Your task to perform on an android device: snooze an email in the gmail app Image 0: 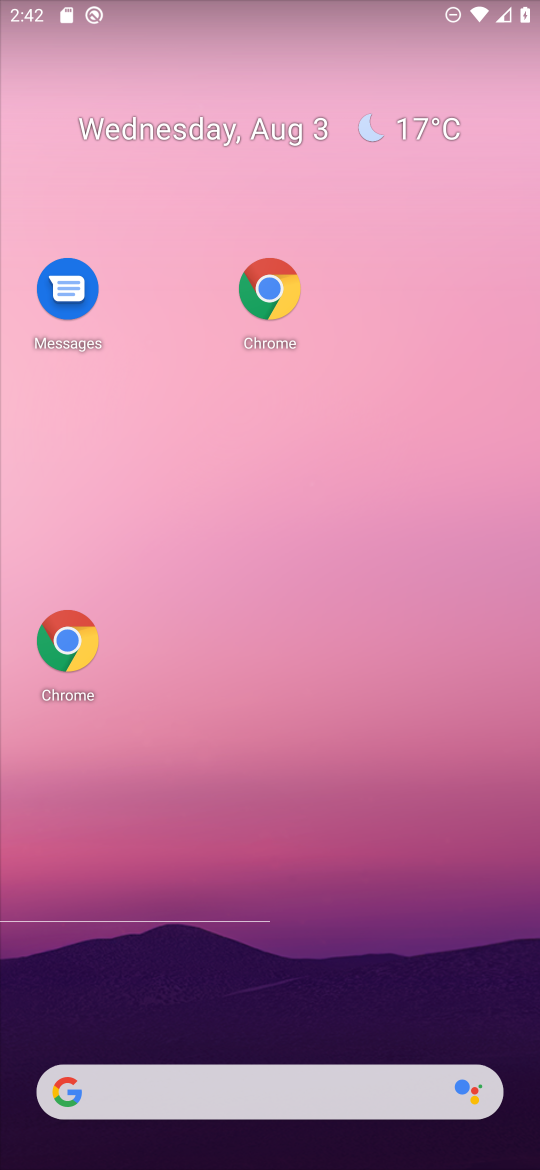
Step 0: drag from (381, 958) to (388, 301)
Your task to perform on an android device: snooze an email in the gmail app Image 1: 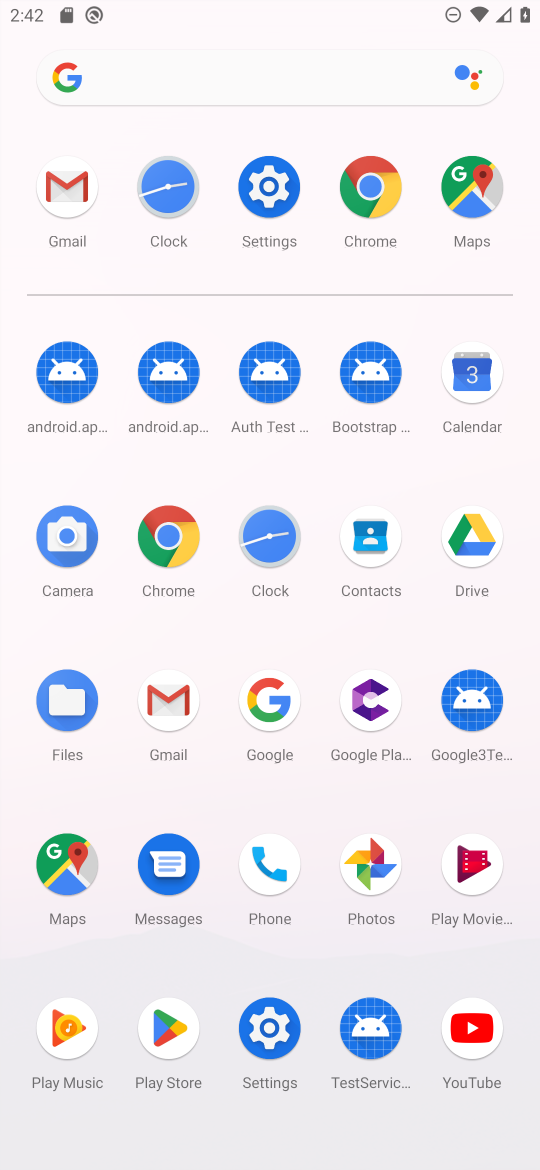
Step 1: click (70, 226)
Your task to perform on an android device: snooze an email in the gmail app Image 2: 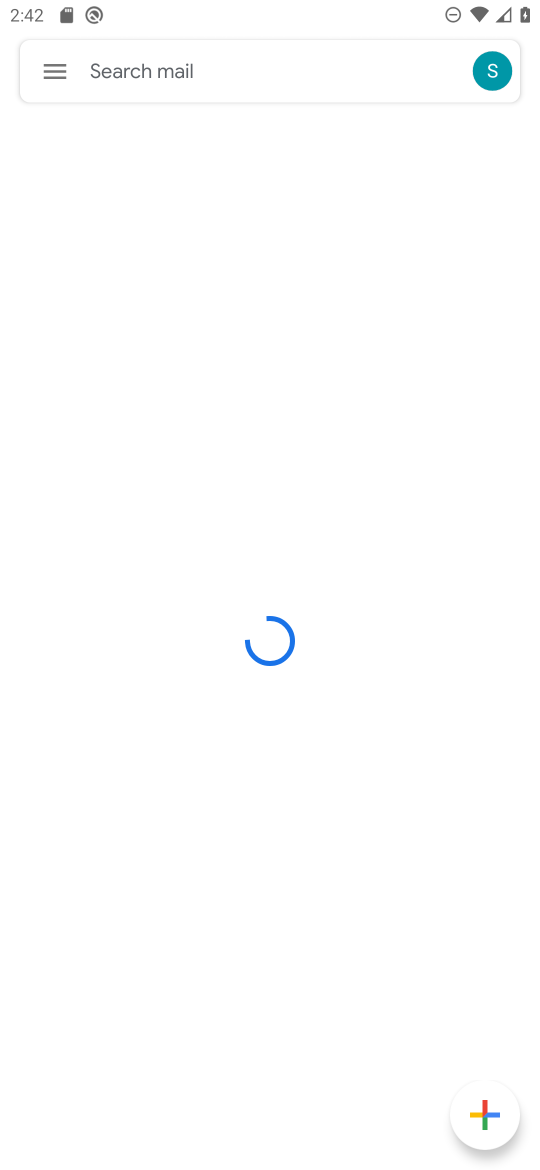
Step 2: click (47, 74)
Your task to perform on an android device: snooze an email in the gmail app Image 3: 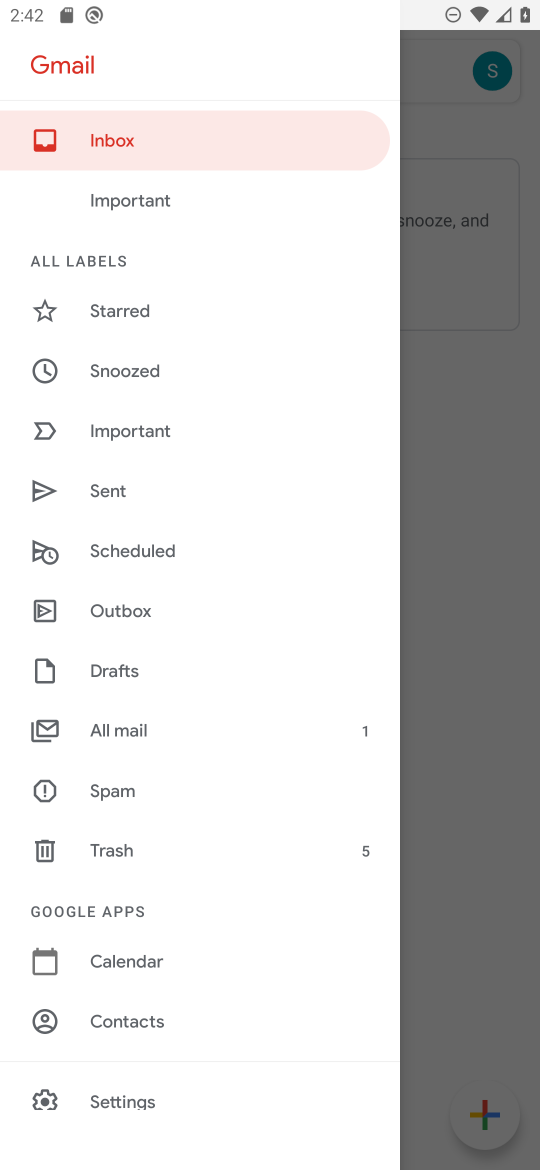
Step 3: click (425, 493)
Your task to perform on an android device: snooze an email in the gmail app Image 4: 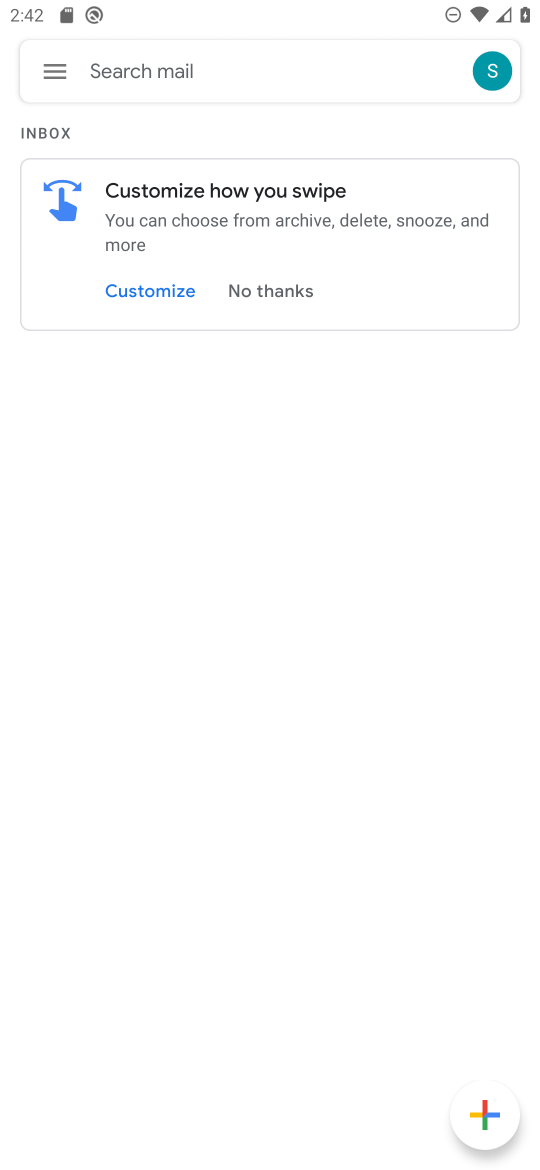
Step 4: click (222, 295)
Your task to perform on an android device: snooze an email in the gmail app Image 5: 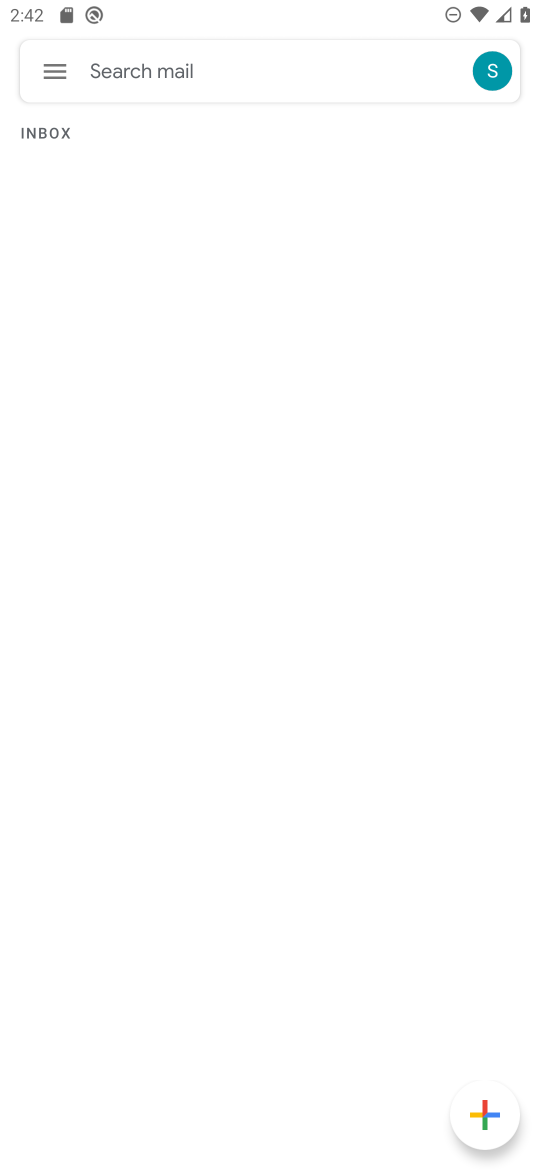
Step 5: task complete